Your task to perform on an android device: What's the weather today? Image 0: 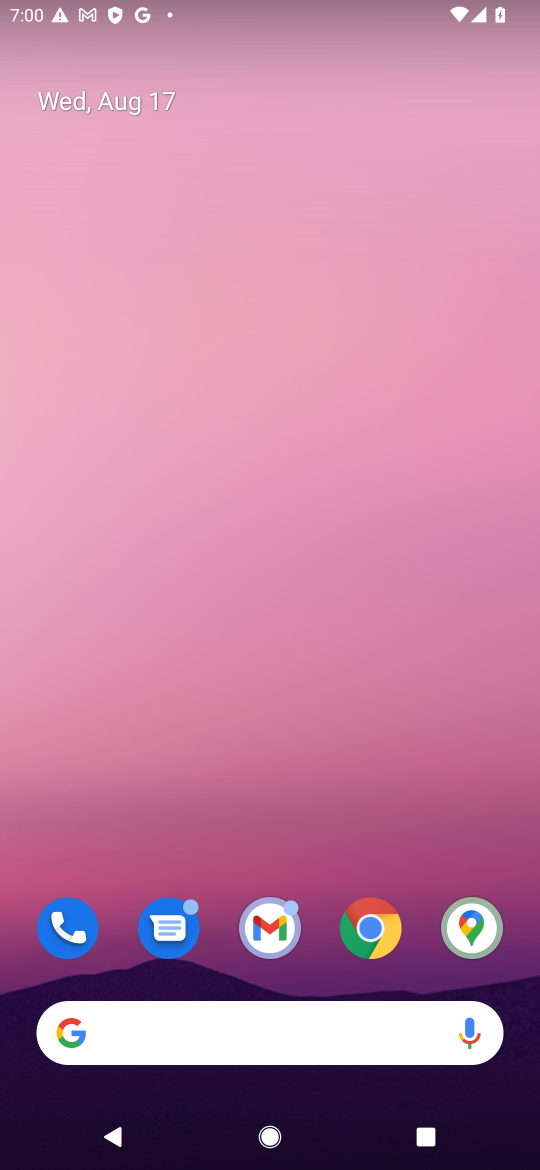
Step 0: click (362, 955)
Your task to perform on an android device: What's the weather today? Image 1: 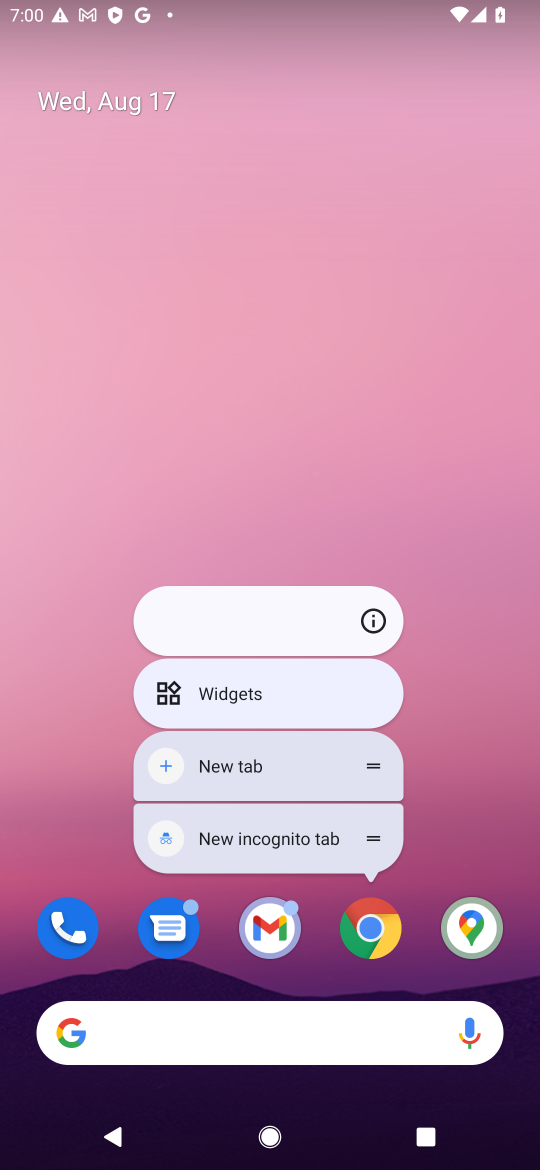
Step 1: click (371, 935)
Your task to perform on an android device: What's the weather today? Image 2: 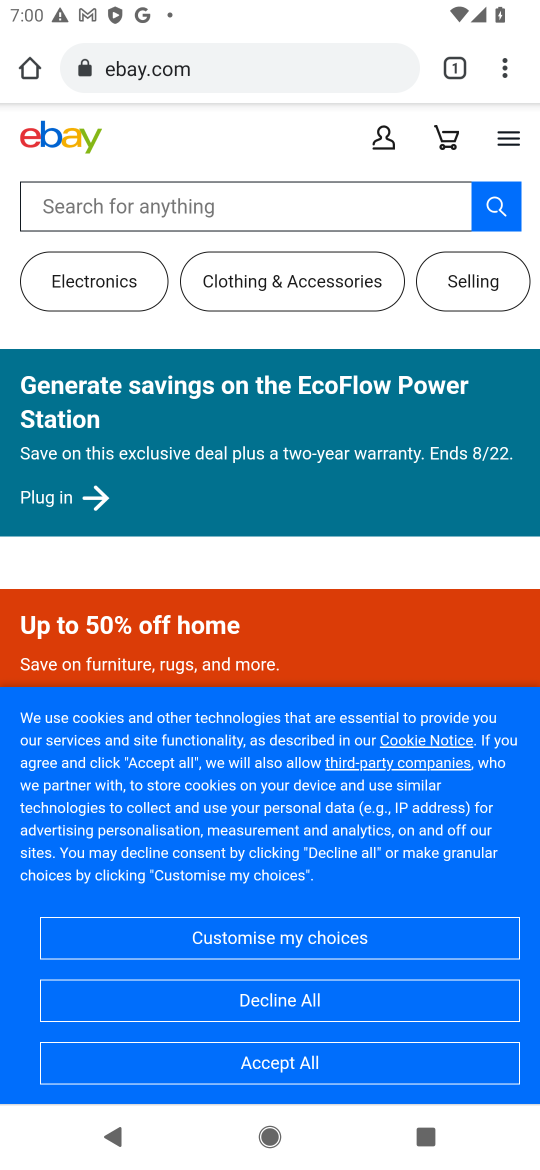
Step 2: click (185, 84)
Your task to perform on an android device: What's the weather today? Image 3: 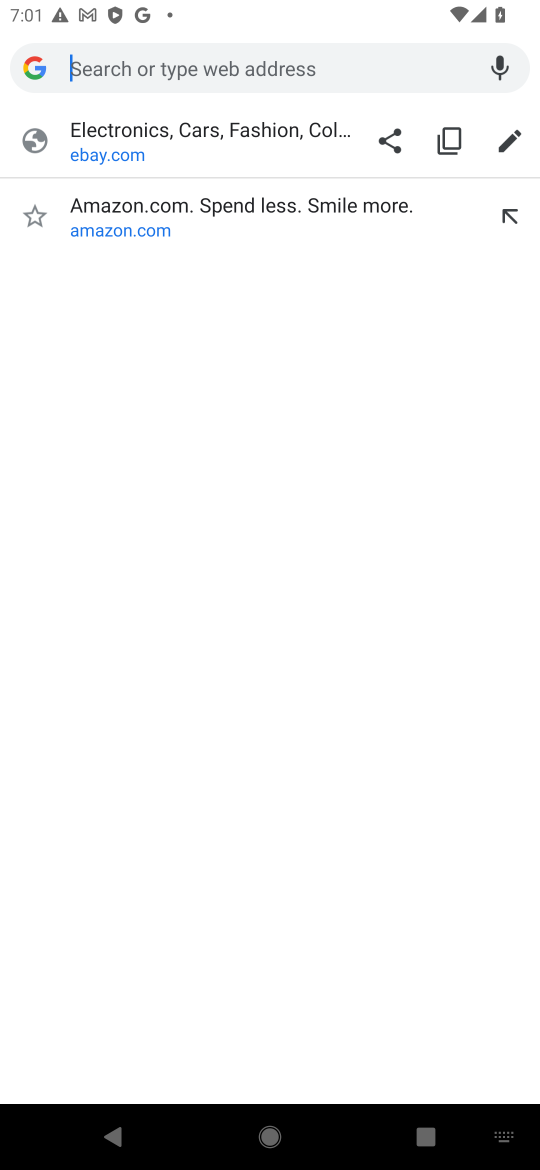
Step 3: type "weather"
Your task to perform on an android device: What's the weather today? Image 4: 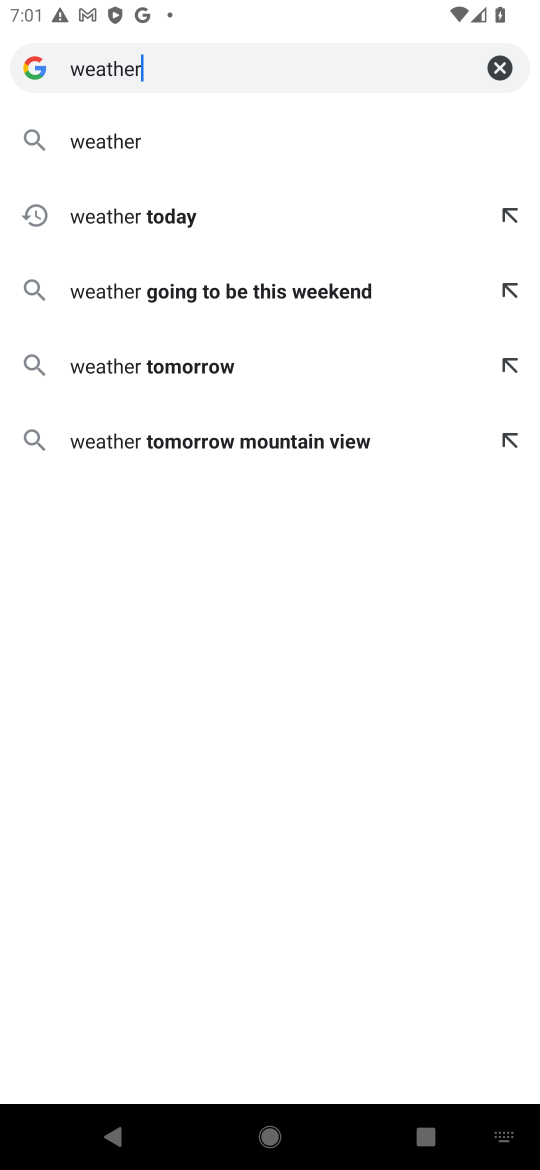
Step 4: click (152, 222)
Your task to perform on an android device: What's the weather today? Image 5: 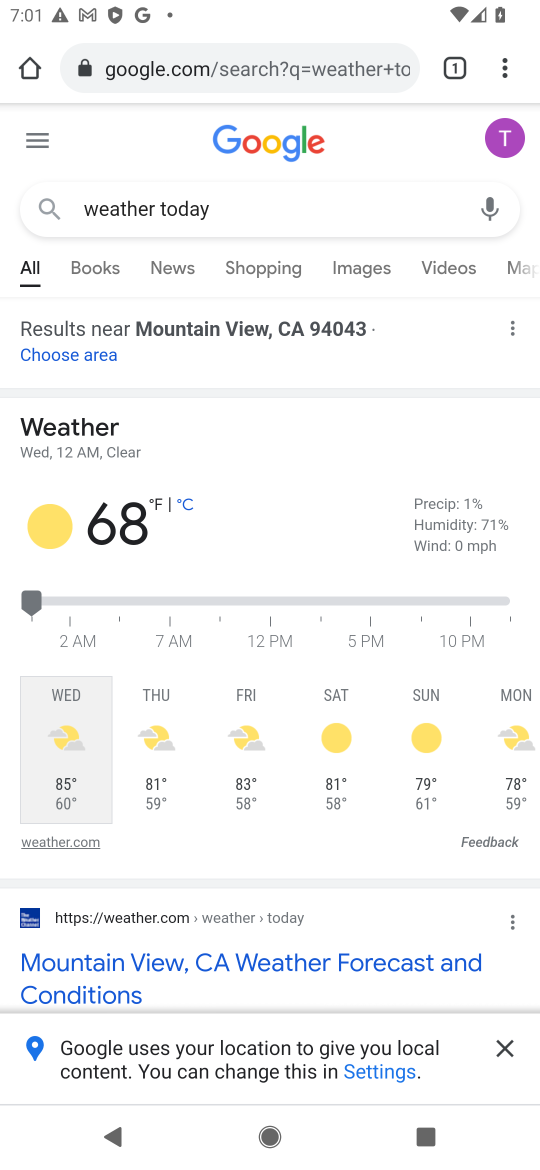
Step 5: task complete